Your task to perform on an android device: open app "Google Duo" (install if not already installed) Image 0: 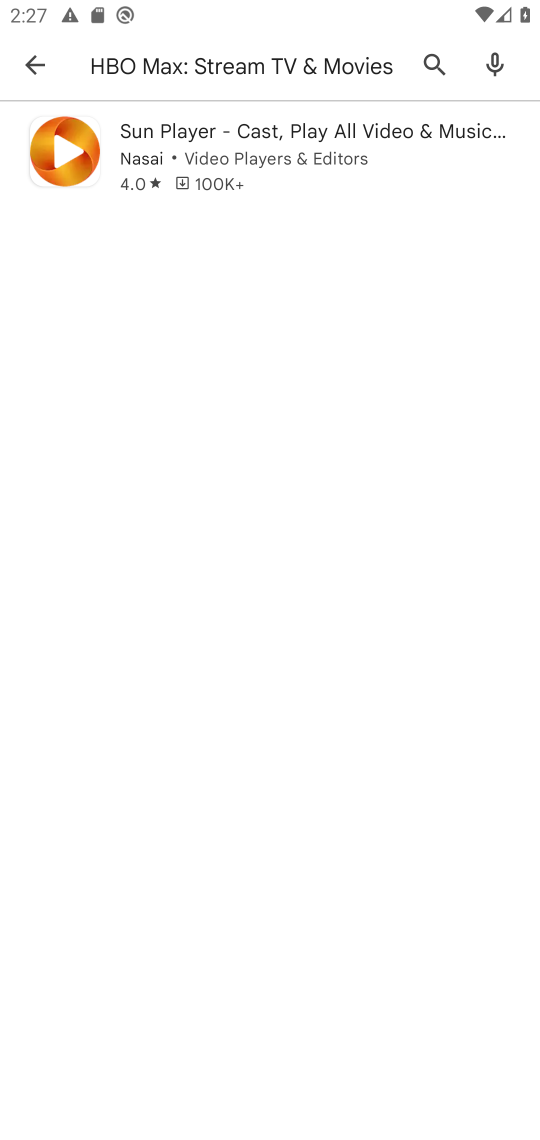
Step 0: press home button
Your task to perform on an android device: open app "Google Duo" (install if not already installed) Image 1: 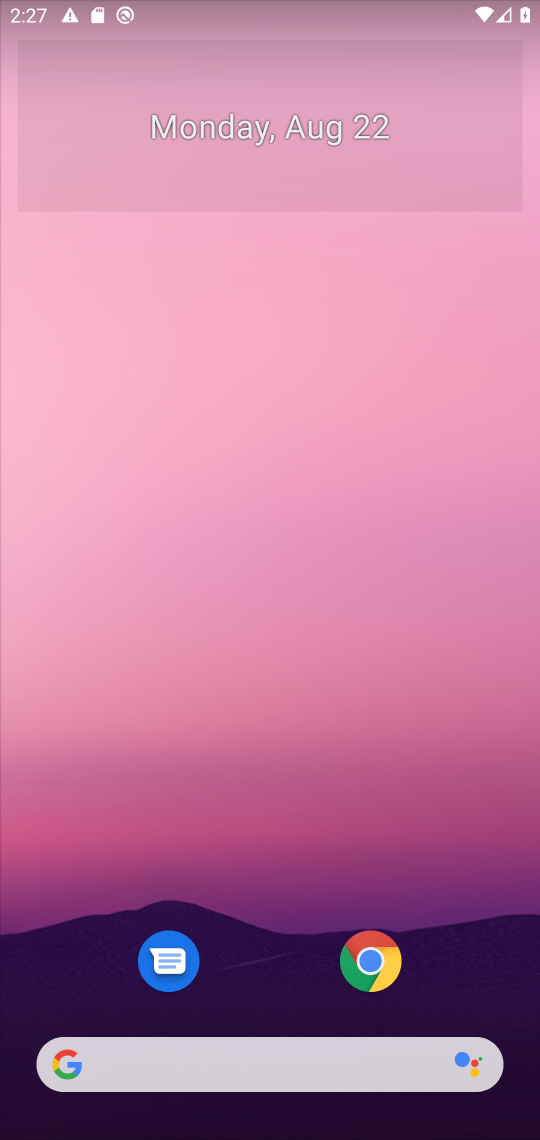
Step 1: drag from (471, 946) to (471, 454)
Your task to perform on an android device: open app "Google Duo" (install if not already installed) Image 2: 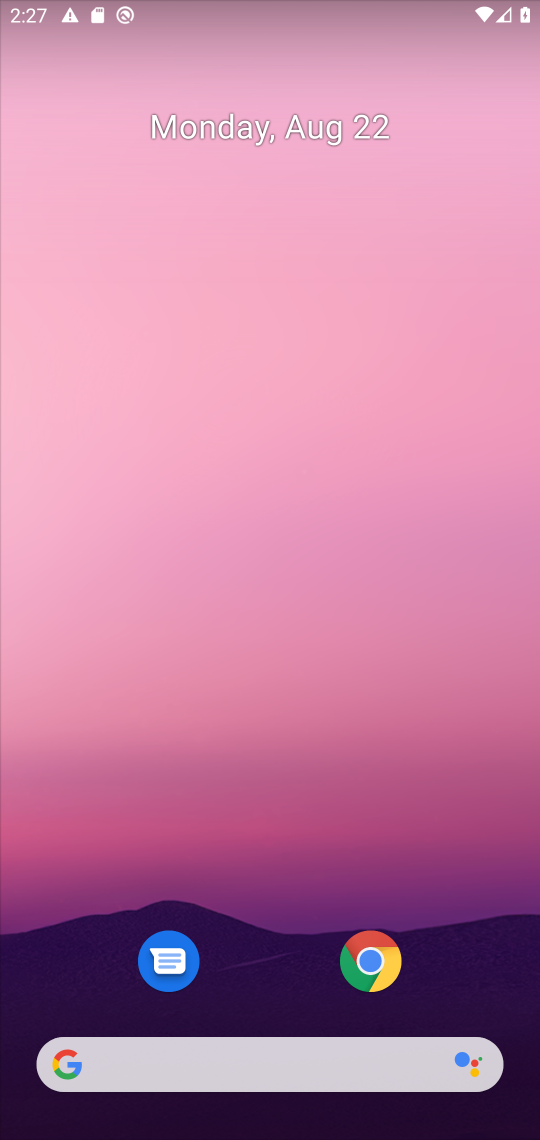
Step 2: drag from (470, 922) to (462, 59)
Your task to perform on an android device: open app "Google Duo" (install if not already installed) Image 3: 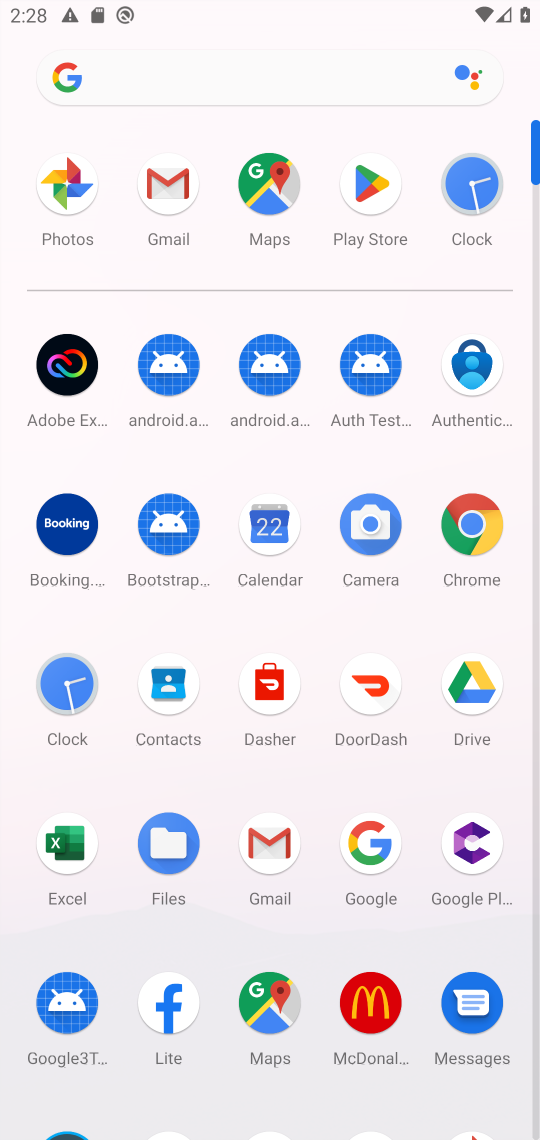
Step 3: click (369, 181)
Your task to perform on an android device: open app "Google Duo" (install if not already installed) Image 4: 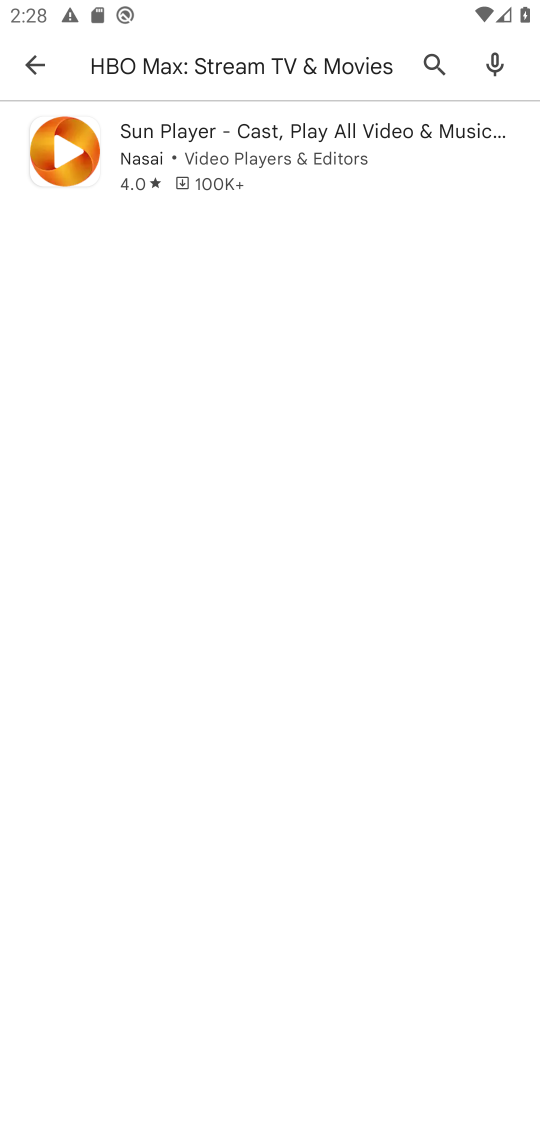
Step 4: press back button
Your task to perform on an android device: open app "Google Duo" (install if not already installed) Image 5: 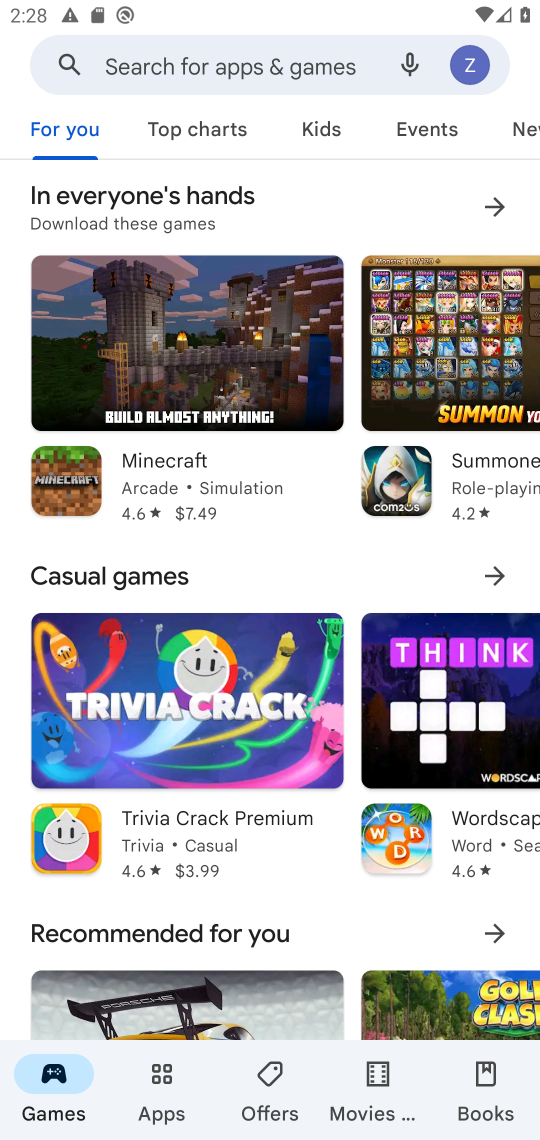
Step 5: click (306, 58)
Your task to perform on an android device: open app "Google Duo" (install if not already installed) Image 6: 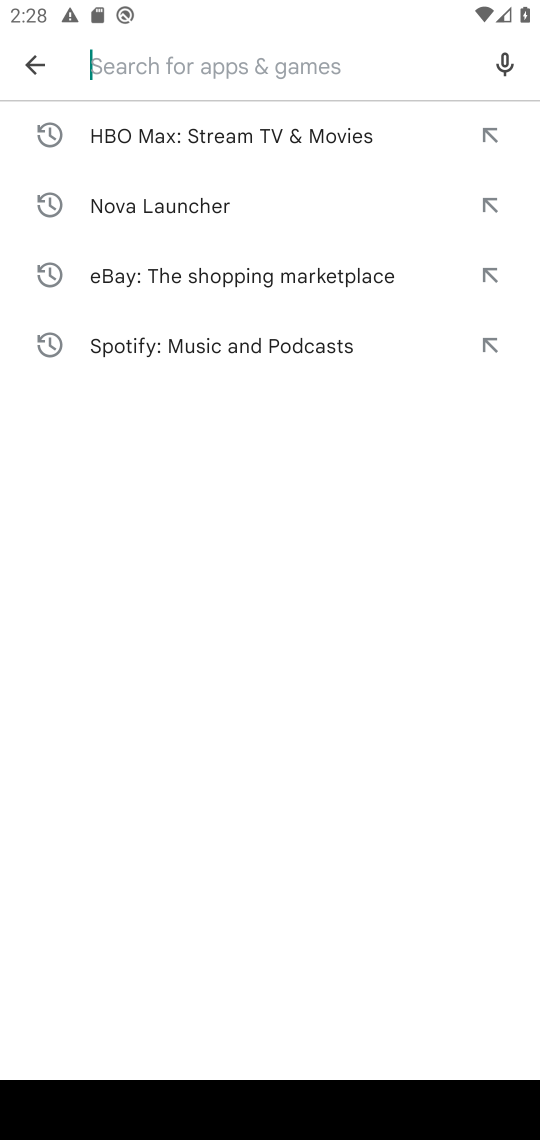
Step 6: press enter
Your task to perform on an android device: open app "Google Duo" (install if not already installed) Image 7: 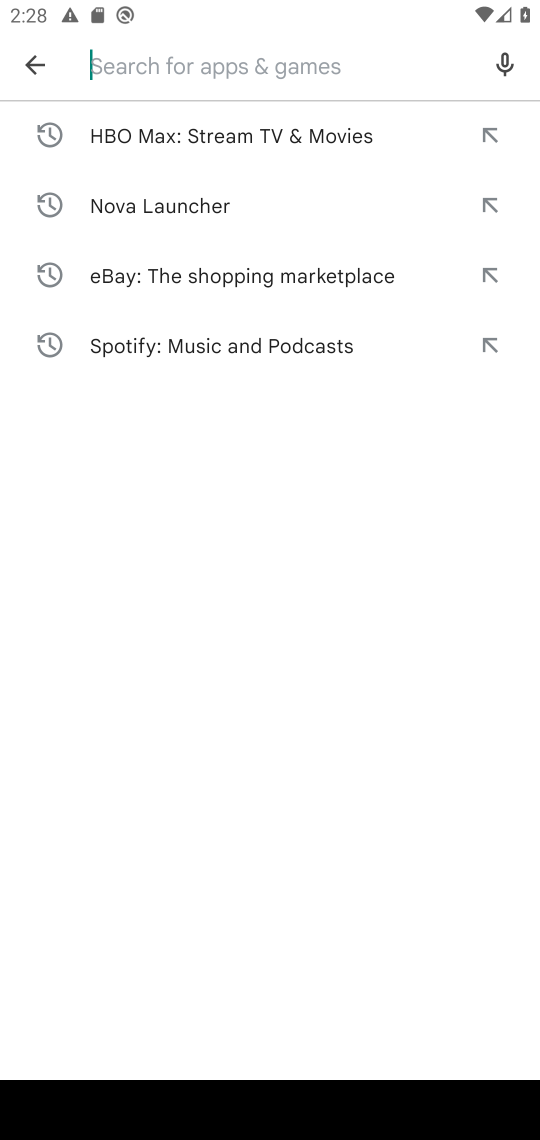
Step 7: type "google duo"
Your task to perform on an android device: open app "Google Duo" (install if not already installed) Image 8: 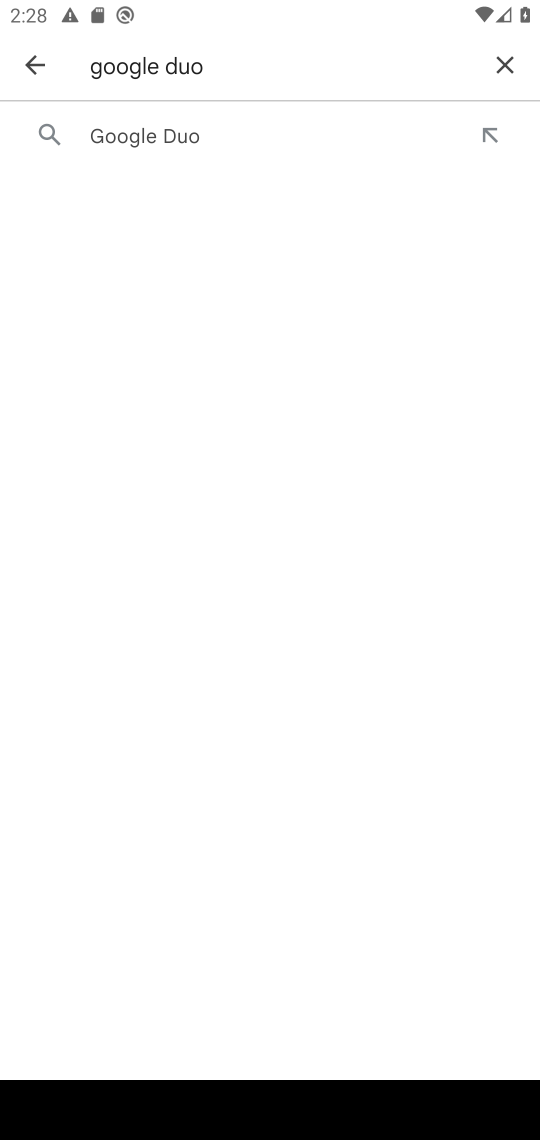
Step 8: click (180, 141)
Your task to perform on an android device: open app "Google Duo" (install if not already installed) Image 9: 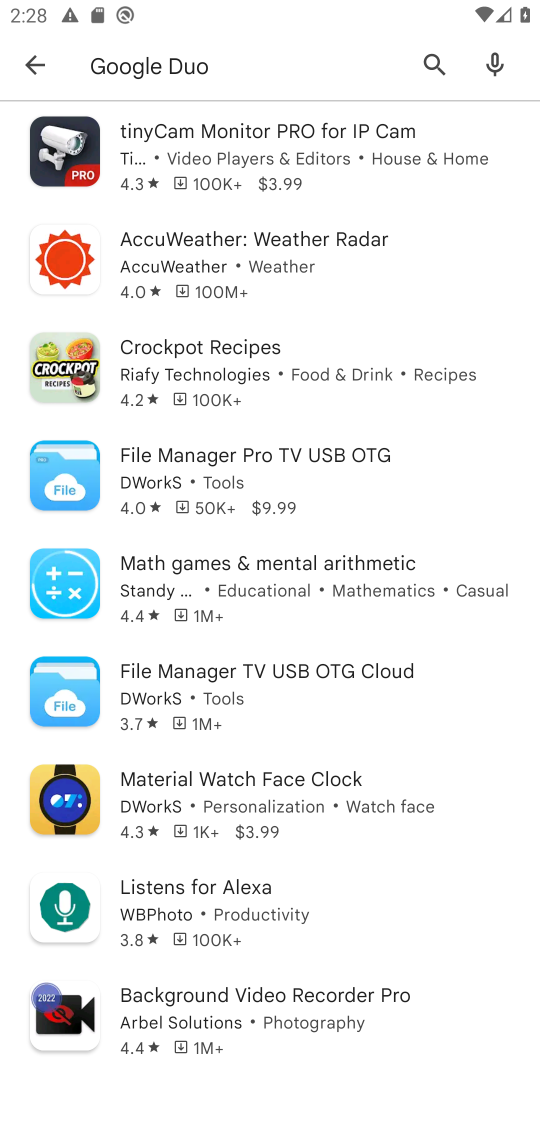
Step 9: task complete